Your task to perform on an android device: turn on wifi Image 0: 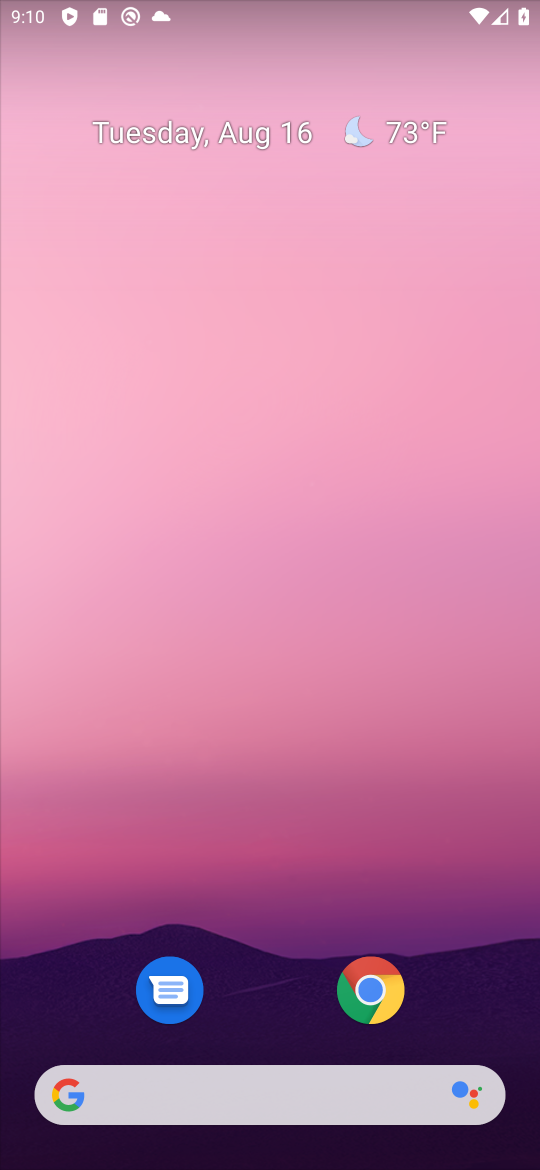
Step 0: drag from (451, 9) to (383, 720)
Your task to perform on an android device: turn on wifi Image 1: 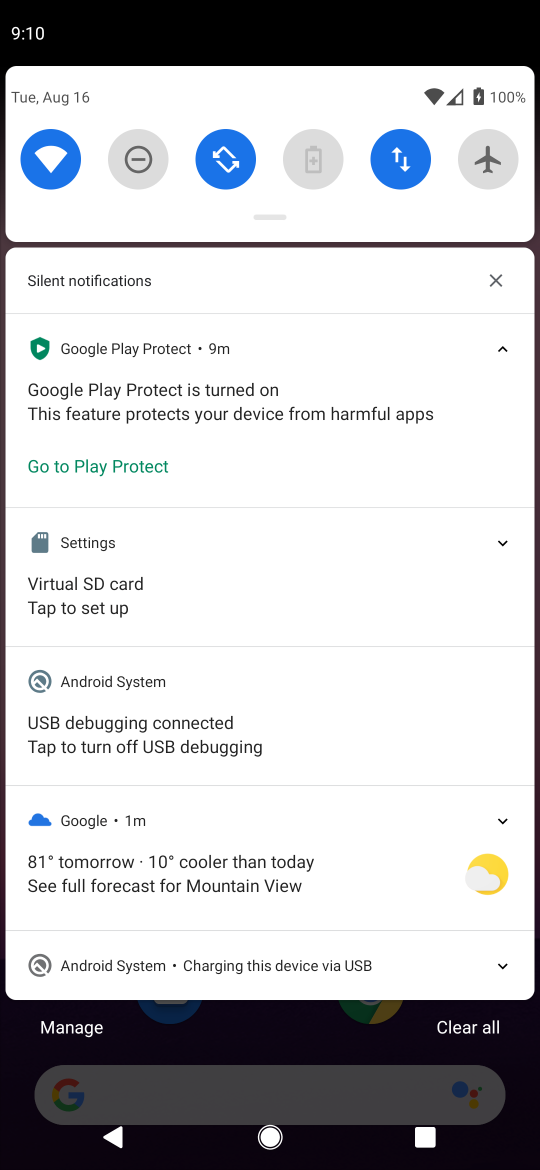
Step 1: task complete